Your task to perform on an android device: turn on location history Image 0: 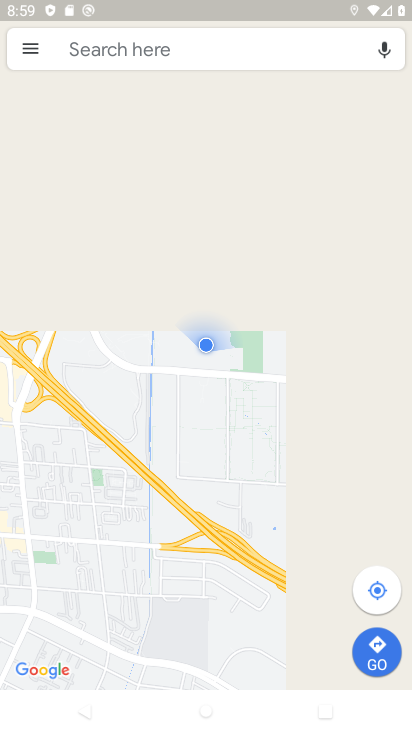
Step 0: press home button
Your task to perform on an android device: turn on location history Image 1: 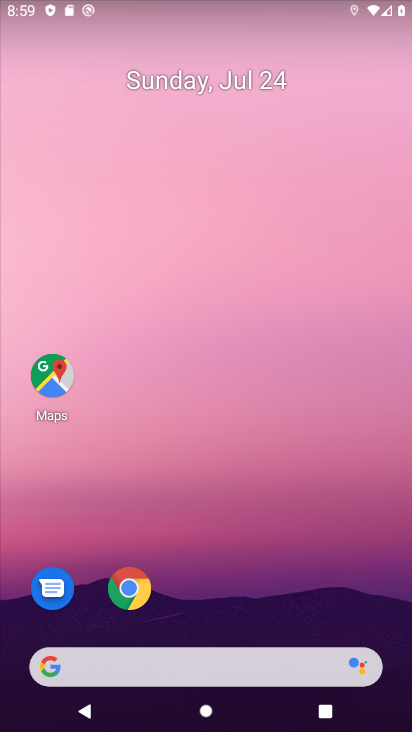
Step 1: drag from (203, 657) to (347, 112)
Your task to perform on an android device: turn on location history Image 2: 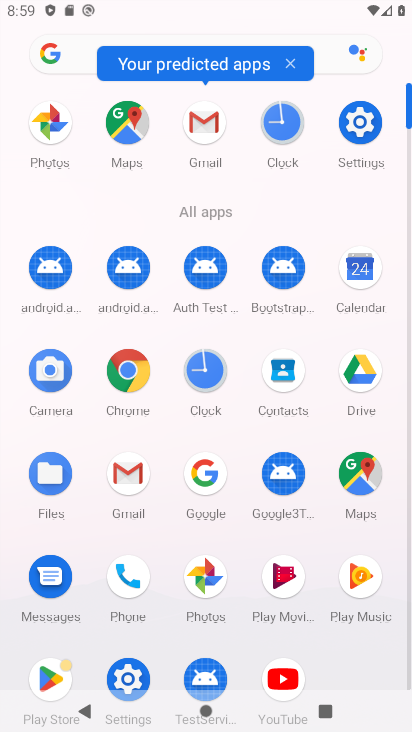
Step 2: click (367, 118)
Your task to perform on an android device: turn on location history Image 3: 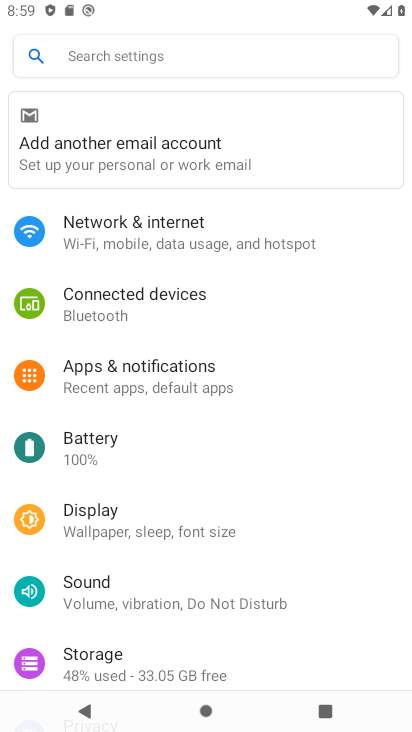
Step 3: drag from (237, 632) to (291, 227)
Your task to perform on an android device: turn on location history Image 4: 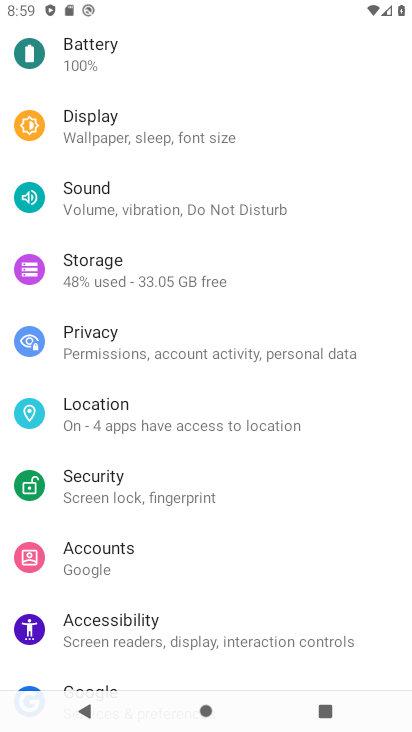
Step 4: click (131, 396)
Your task to perform on an android device: turn on location history Image 5: 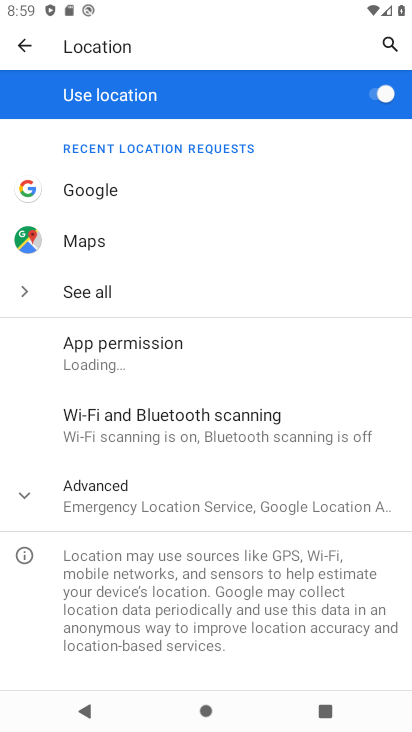
Step 5: click (214, 494)
Your task to perform on an android device: turn on location history Image 6: 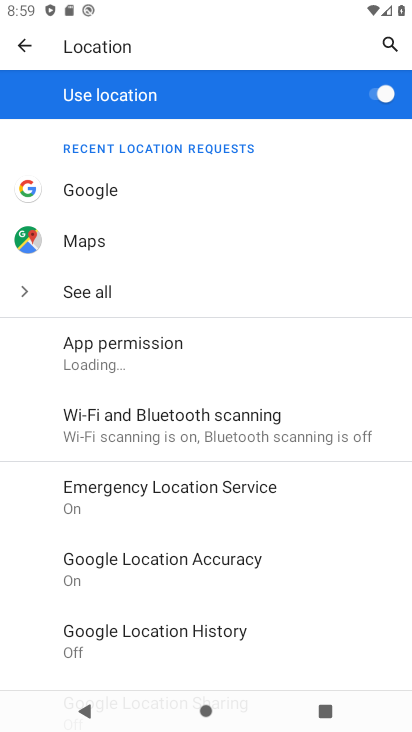
Step 6: click (232, 643)
Your task to perform on an android device: turn on location history Image 7: 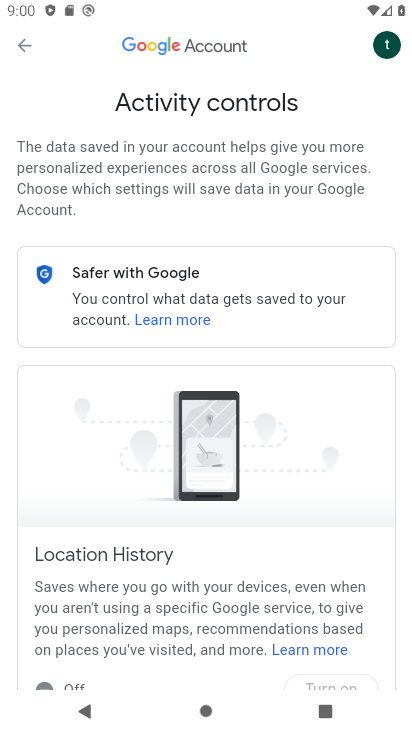
Step 7: drag from (317, 599) to (399, 168)
Your task to perform on an android device: turn on location history Image 8: 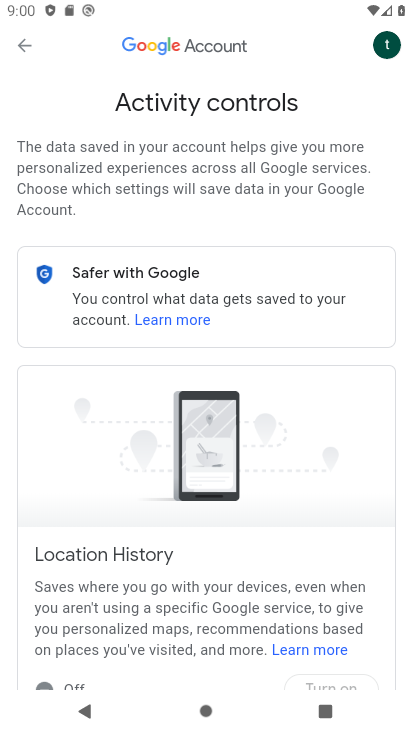
Step 8: drag from (74, 584) to (180, 247)
Your task to perform on an android device: turn on location history Image 9: 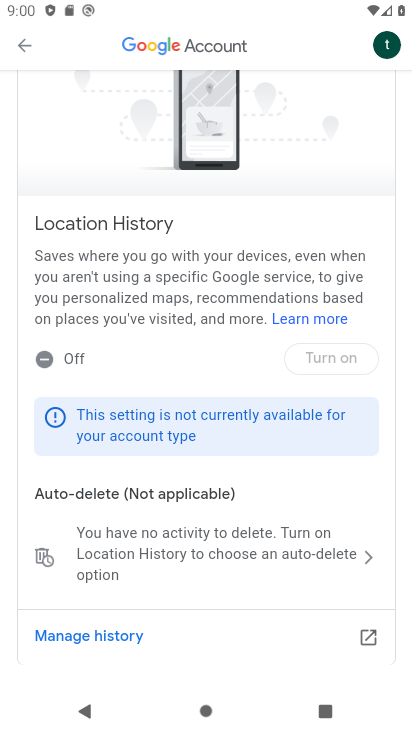
Step 9: drag from (96, 610) to (178, 336)
Your task to perform on an android device: turn on location history Image 10: 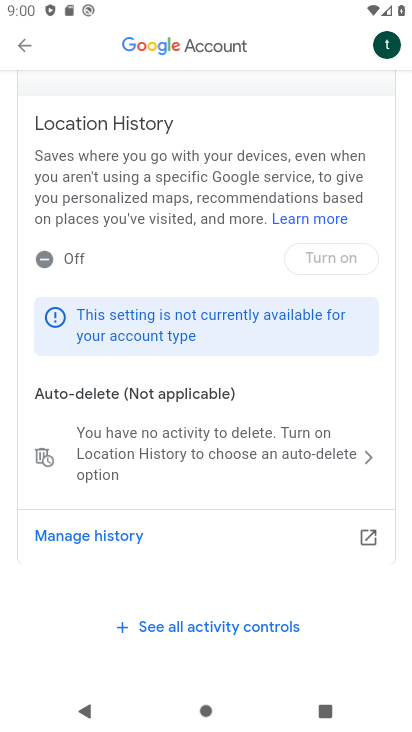
Step 10: drag from (278, 291) to (274, 338)
Your task to perform on an android device: turn on location history Image 11: 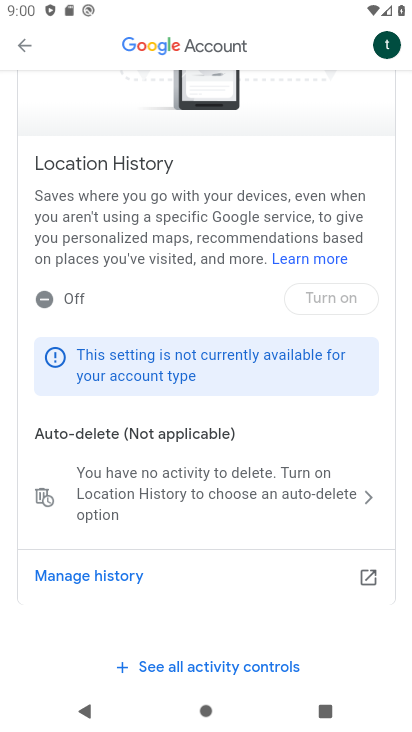
Step 11: drag from (258, 319) to (227, 527)
Your task to perform on an android device: turn on location history Image 12: 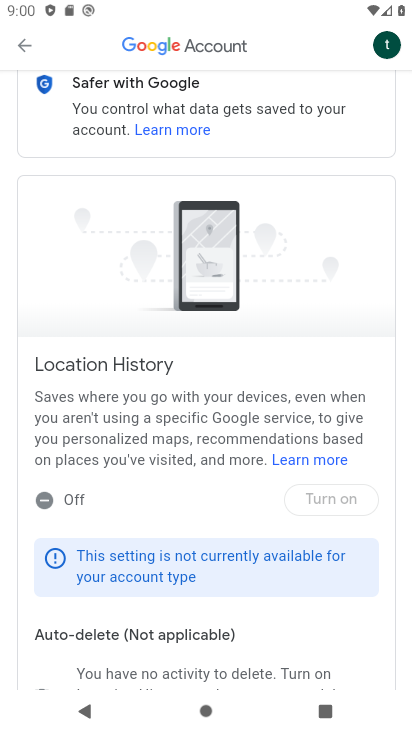
Step 12: click (324, 502)
Your task to perform on an android device: turn on location history Image 13: 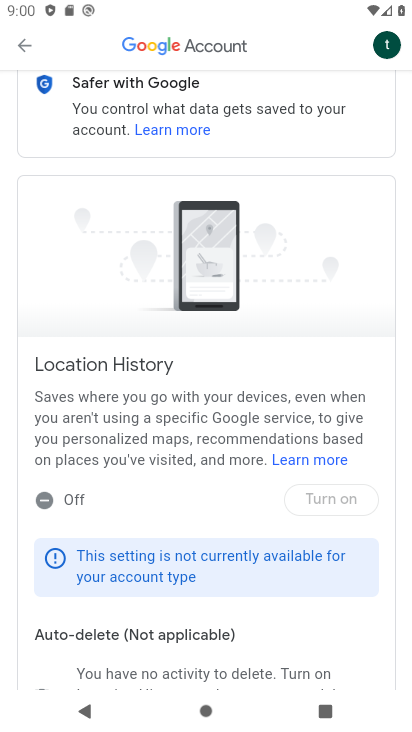
Step 13: click (324, 502)
Your task to perform on an android device: turn on location history Image 14: 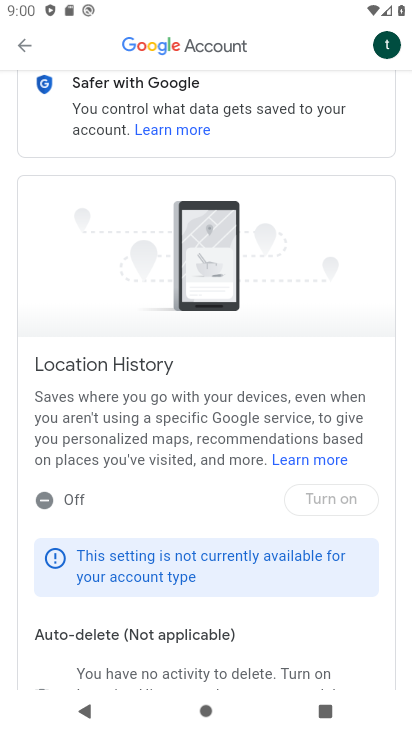
Step 14: task complete